Your task to perform on an android device: check battery use Image 0: 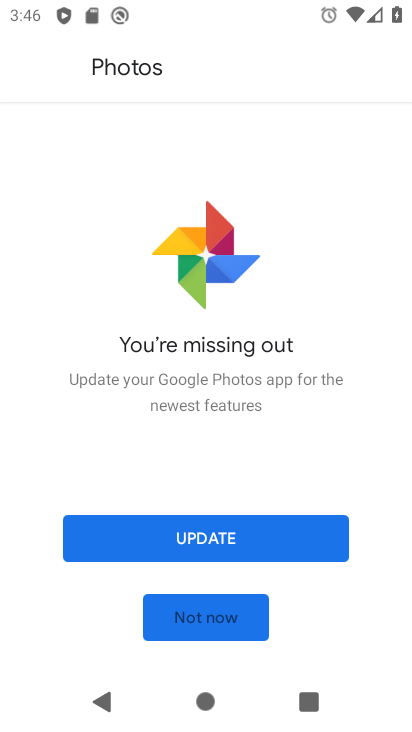
Step 0: press home button
Your task to perform on an android device: check battery use Image 1: 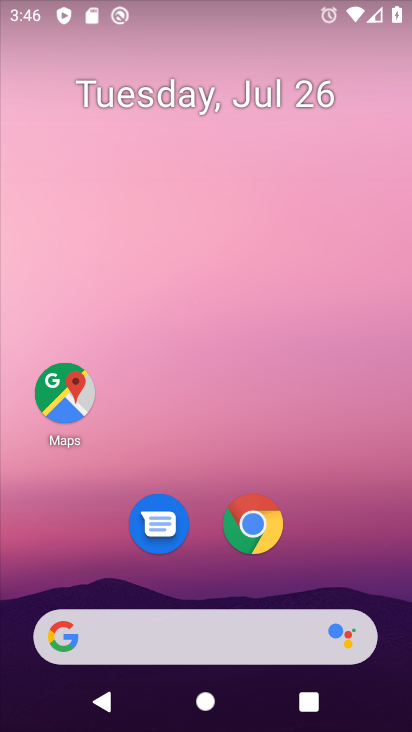
Step 1: drag from (314, 527) to (328, 13)
Your task to perform on an android device: check battery use Image 2: 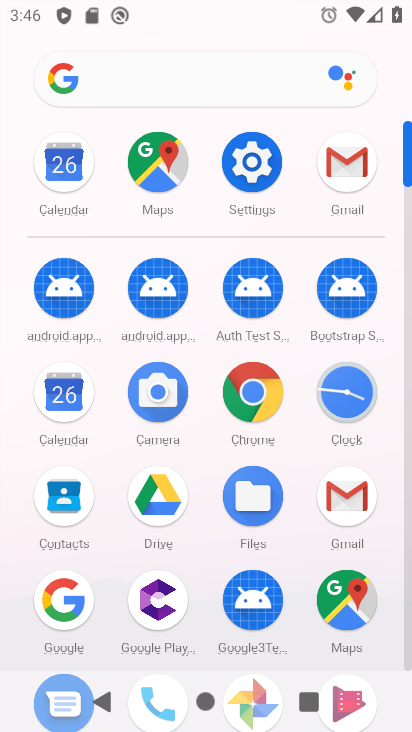
Step 2: click (254, 162)
Your task to perform on an android device: check battery use Image 3: 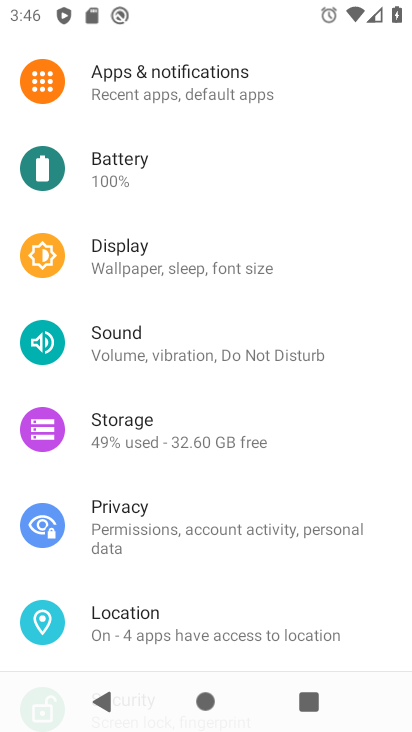
Step 3: click (142, 159)
Your task to perform on an android device: check battery use Image 4: 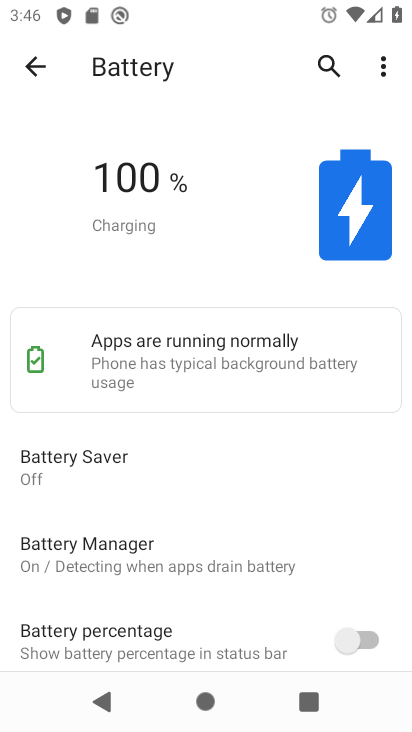
Step 4: click (385, 64)
Your task to perform on an android device: check battery use Image 5: 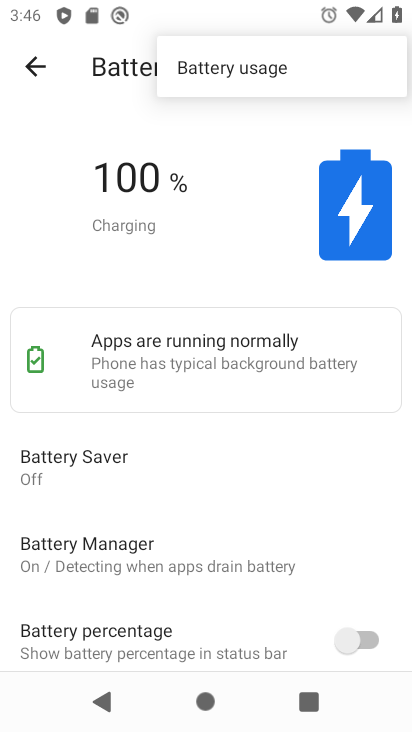
Step 5: click (270, 64)
Your task to perform on an android device: check battery use Image 6: 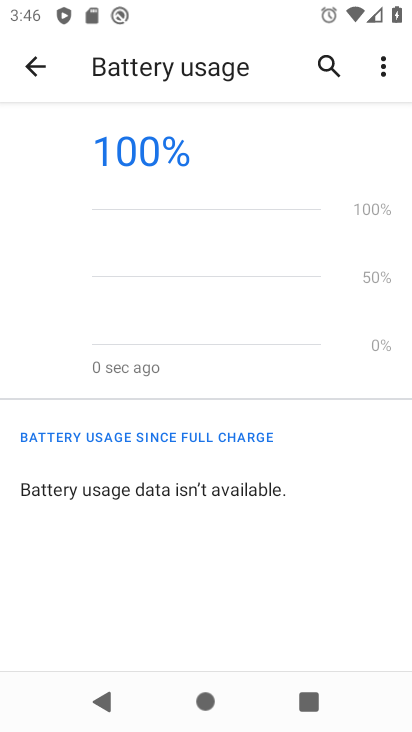
Step 6: task complete